Your task to perform on an android device: turn smart compose on in the gmail app Image 0: 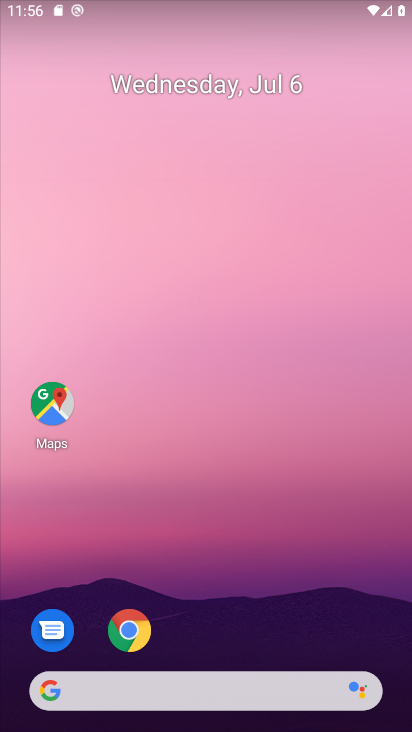
Step 0: click (281, 212)
Your task to perform on an android device: turn smart compose on in the gmail app Image 1: 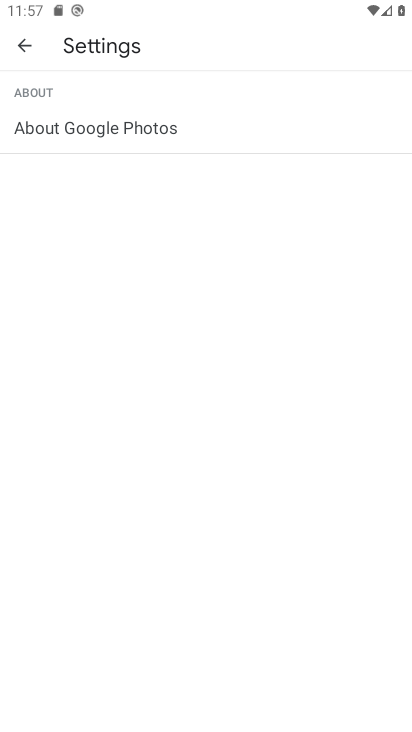
Step 1: click (30, 41)
Your task to perform on an android device: turn smart compose on in the gmail app Image 2: 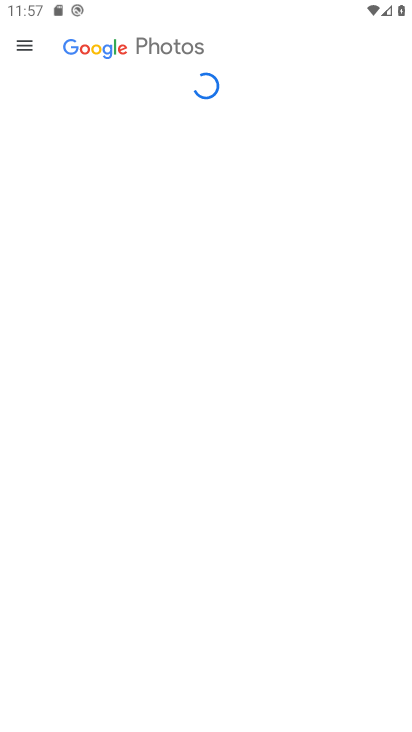
Step 2: press home button
Your task to perform on an android device: turn smart compose on in the gmail app Image 3: 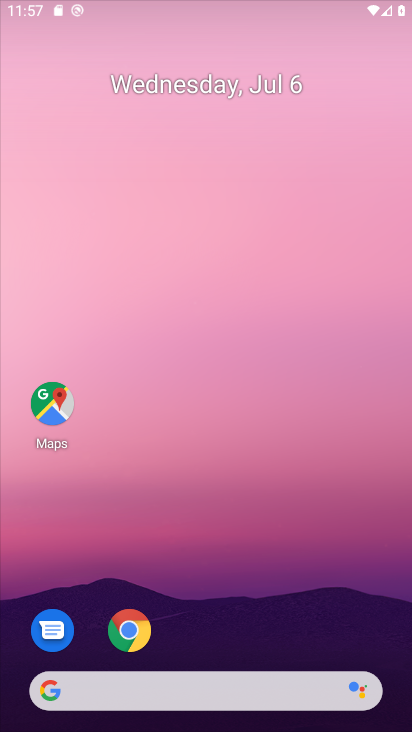
Step 3: drag from (259, 519) to (260, 228)
Your task to perform on an android device: turn smart compose on in the gmail app Image 4: 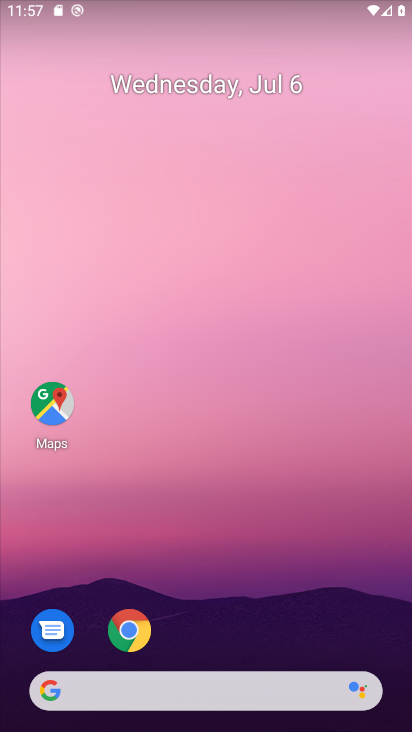
Step 4: drag from (308, 625) to (353, 188)
Your task to perform on an android device: turn smart compose on in the gmail app Image 5: 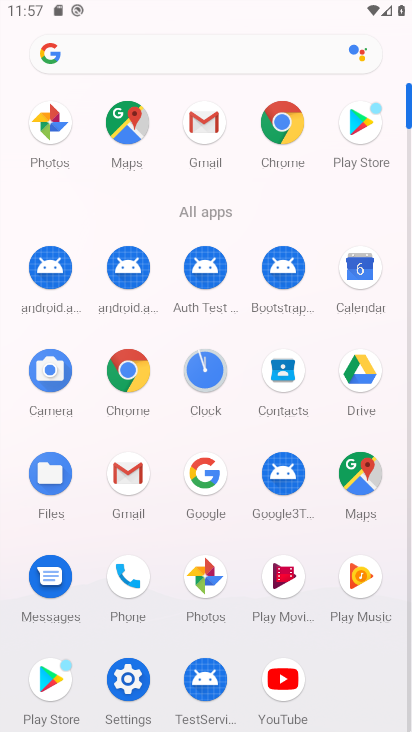
Step 5: click (197, 126)
Your task to perform on an android device: turn smart compose on in the gmail app Image 6: 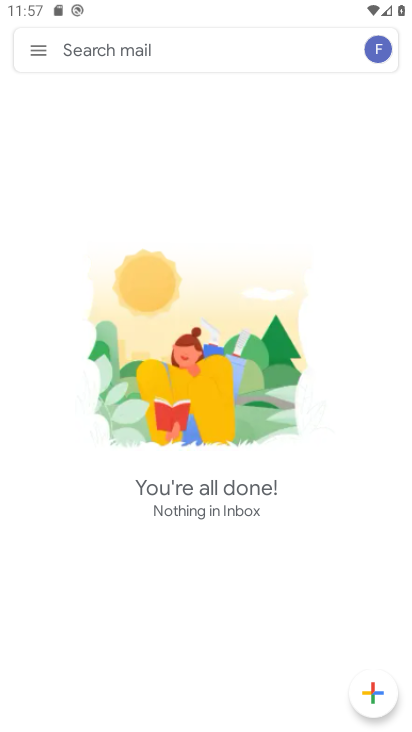
Step 6: click (26, 42)
Your task to perform on an android device: turn smart compose on in the gmail app Image 7: 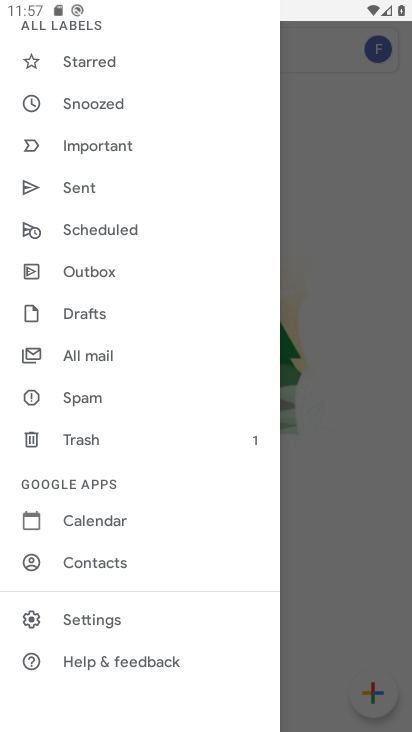
Step 7: drag from (137, 115) to (152, 394)
Your task to perform on an android device: turn smart compose on in the gmail app Image 8: 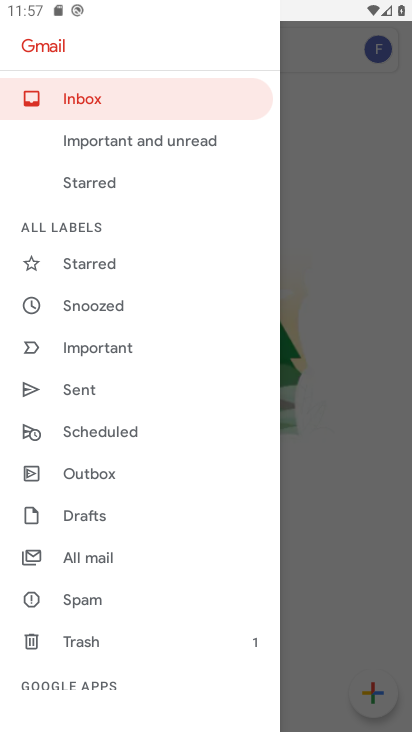
Step 8: click (323, 537)
Your task to perform on an android device: turn smart compose on in the gmail app Image 9: 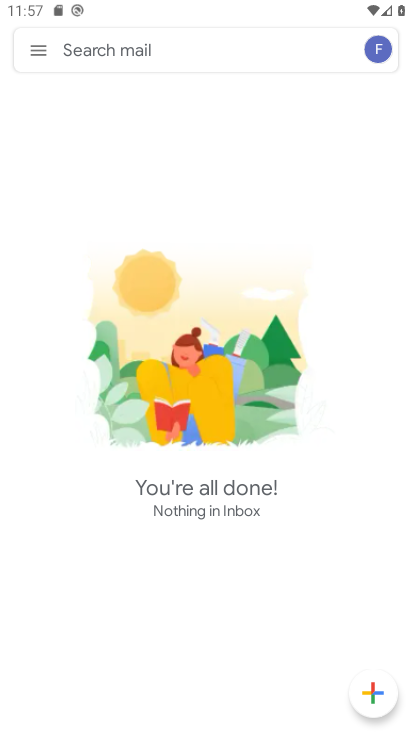
Step 9: click (356, 683)
Your task to perform on an android device: turn smart compose on in the gmail app Image 10: 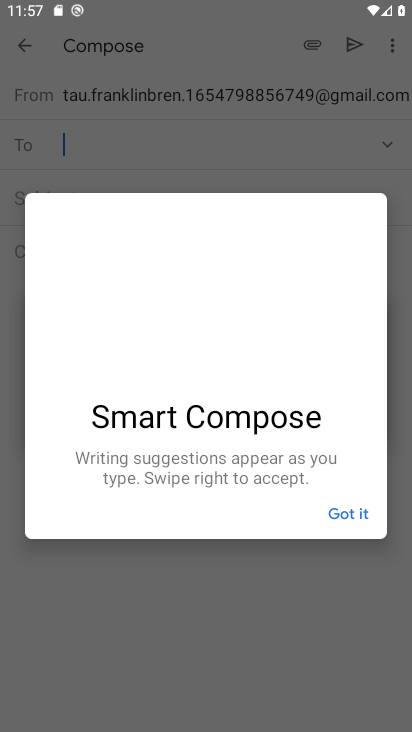
Step 10: click (342, 501)
Your task to perform on an android device: turn smart compose on in the gmail app Image 11: 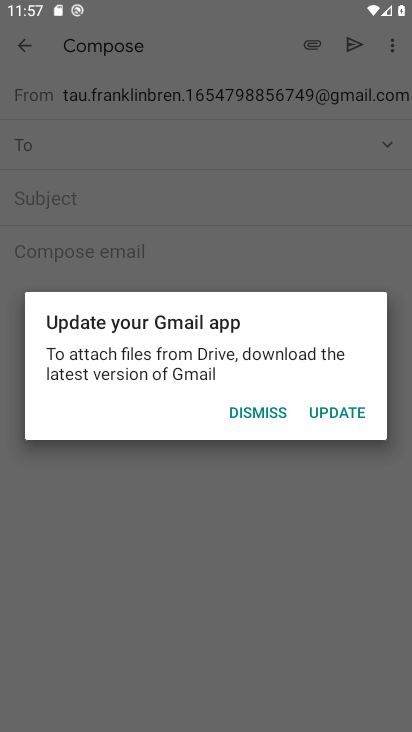
Step 11: click (276, 418)
Your task to perform on an android device: turn smart compose on in the gmail app Image 12: 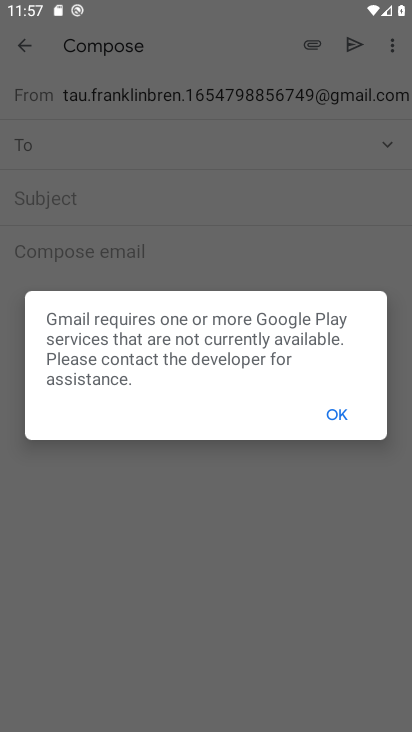
Step 12: click (276, 418)
Your task to perform on an android device: turn smart compose on in the gmail app Image 13: 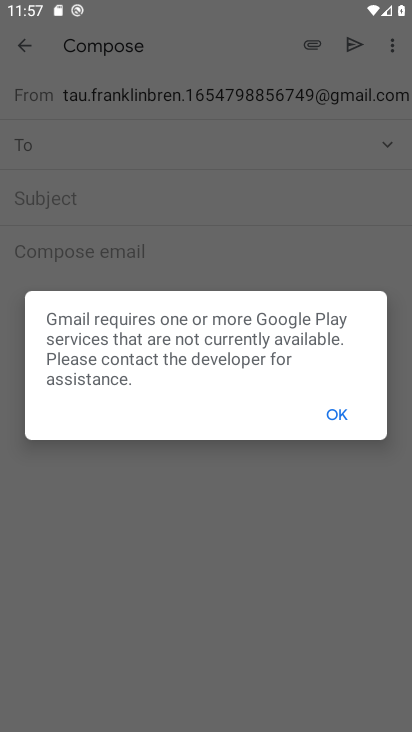
Step 13: click (350, 420)
Your task to perform on an android device: turn smart compose on in the gmail app Image 14: 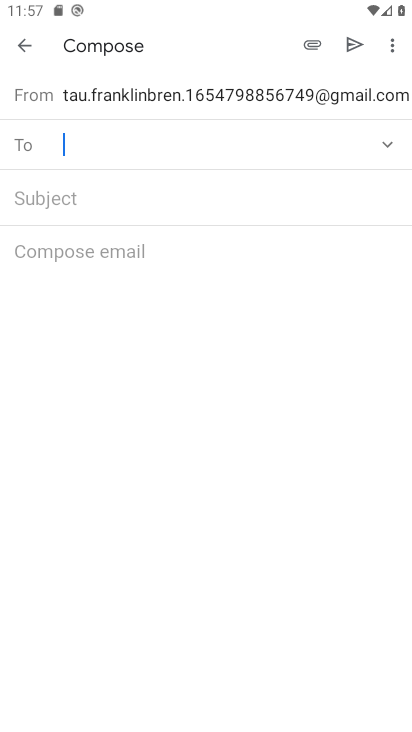
Step 14: task complete